Your task to perform on an android device: uninstall "HBO Max: Stream TV & Movies" Image 0: 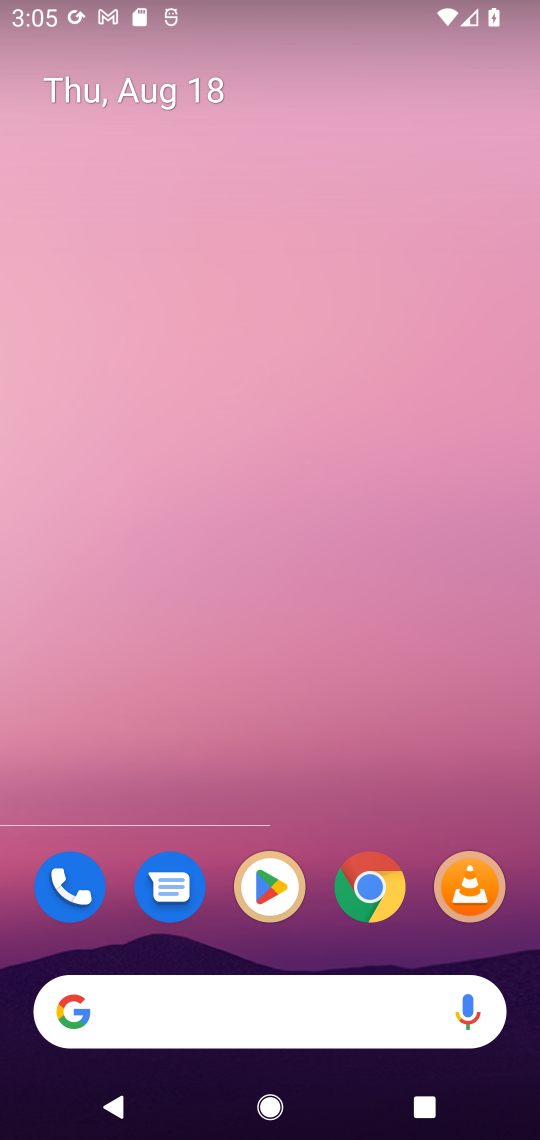
Step 0: press home button
Your task to perform on an android device: uninstall "HBO Max: Stream TV & Movies" Image 1: 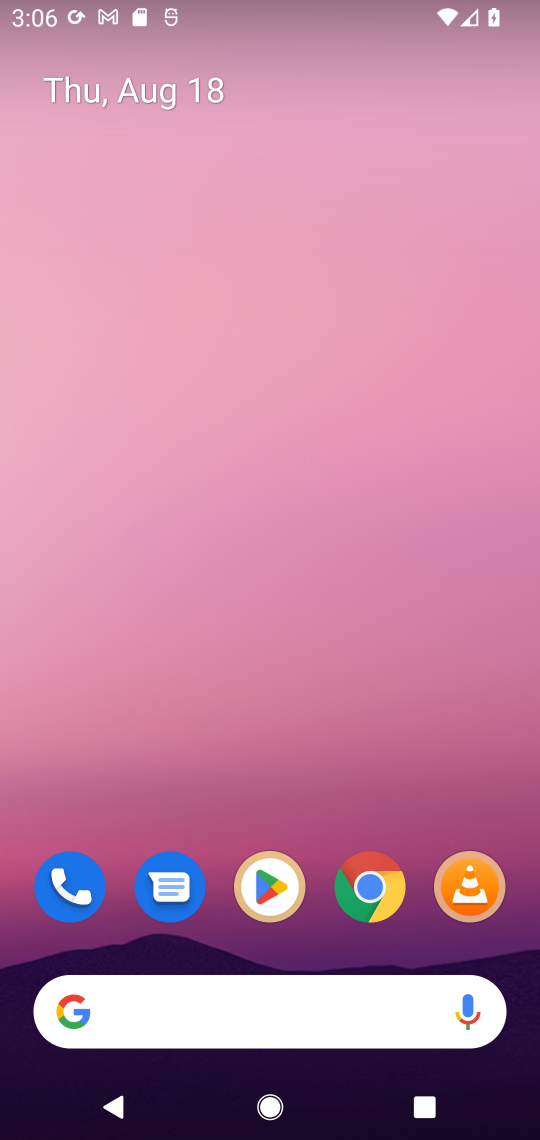
Step 1: click (276, 871)
Your task to perform on an android device: uninstall "HBO Max: Stream TV & Movies" Image 2: 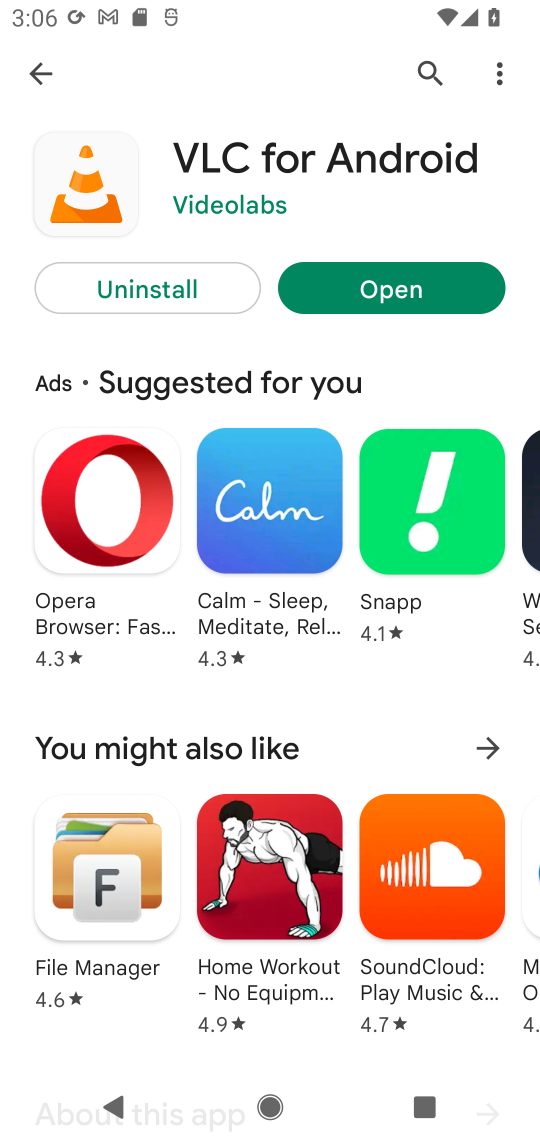
Step 2: click (421, 72)
Your task to perform on an android device: uninstall "HBO Max: Stream TV & Movies" Image 3: 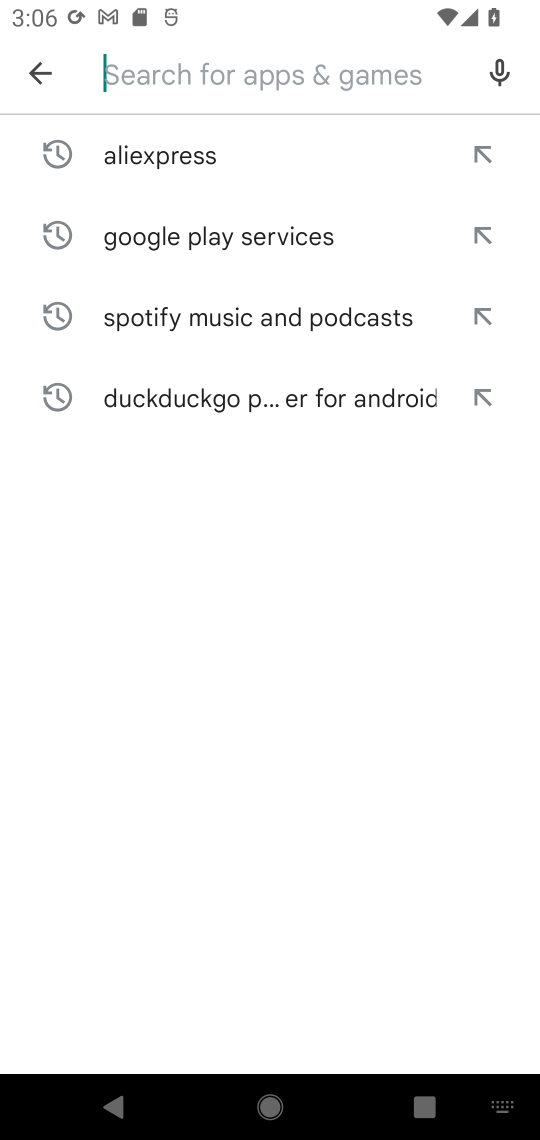
Step 3: type "HBO Max: Stream TV & Movies"
Your task to perform on an android device: uninstall "HBO Max: Stream TV & Movies" Image 4: 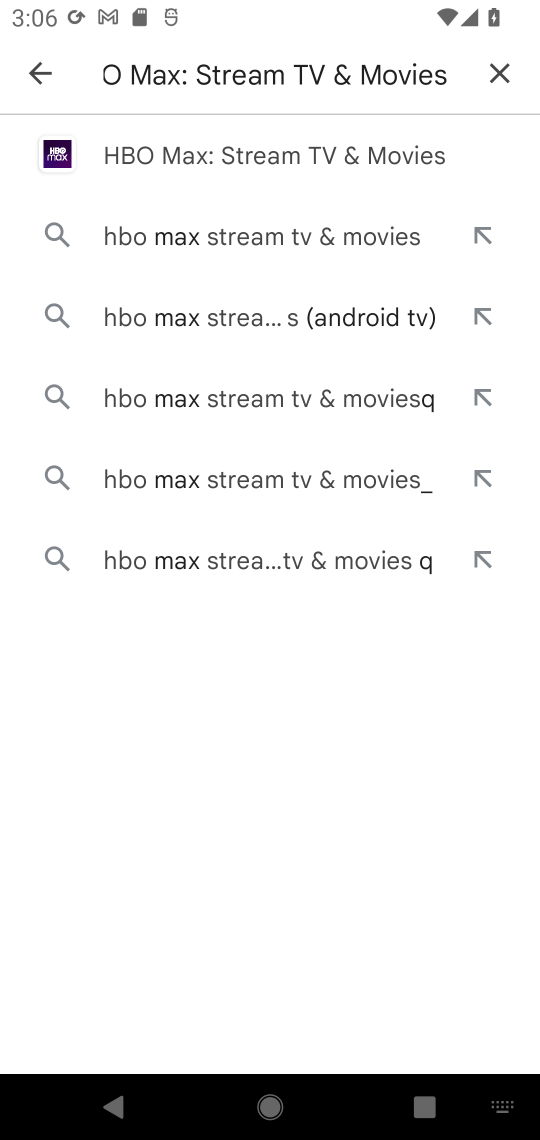
Step 4: click (219, 149)
Your task to perform on an android device: uninstall "HBO Max: Stream TV & Movies" Image 5: 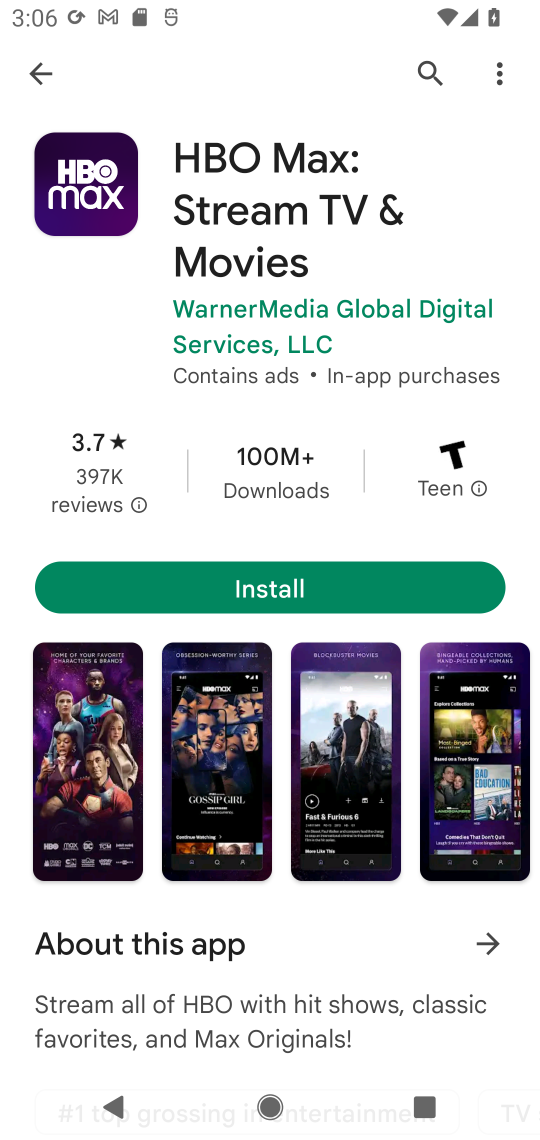
Step 5: task complete